Your task to perform on an android device: refresh tabs in the chrome app Image 0: 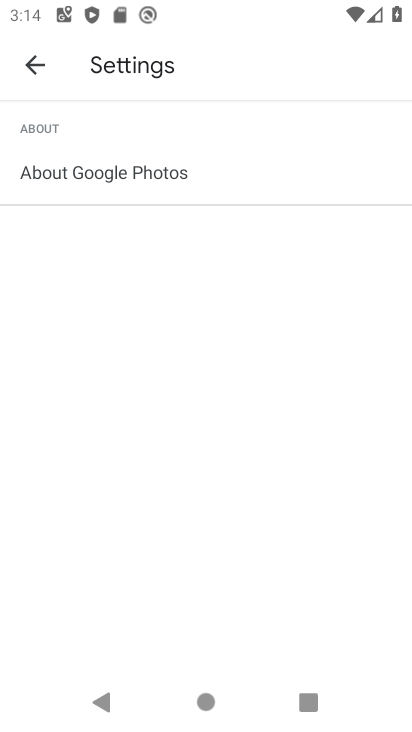
Step 0: press back button
Your task to perform on an android device: refresh tabs in the chrome app Image 1: 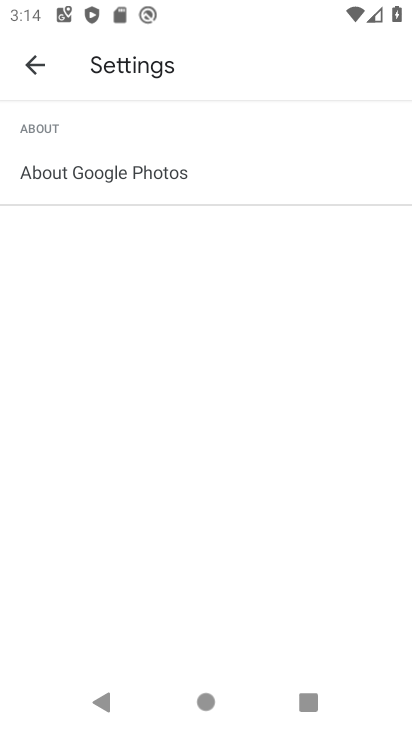
Step 1: press back button
Your task to perform on an android device: refresh tabs in the chrome app Image 2: 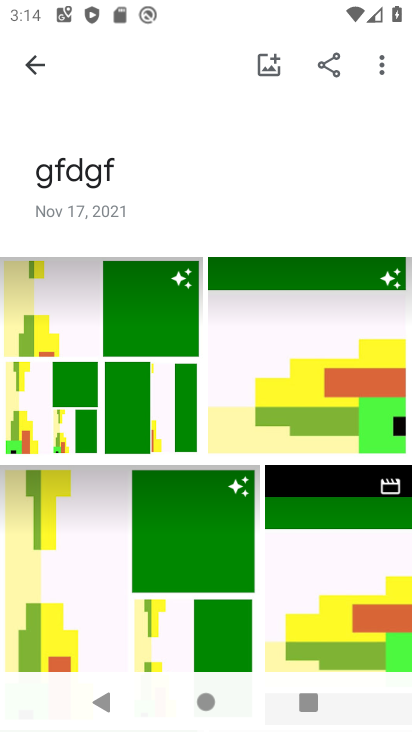
Step 2: press back button
Your task to perform on an android device: refresh tabs in the chrome app Image 3: 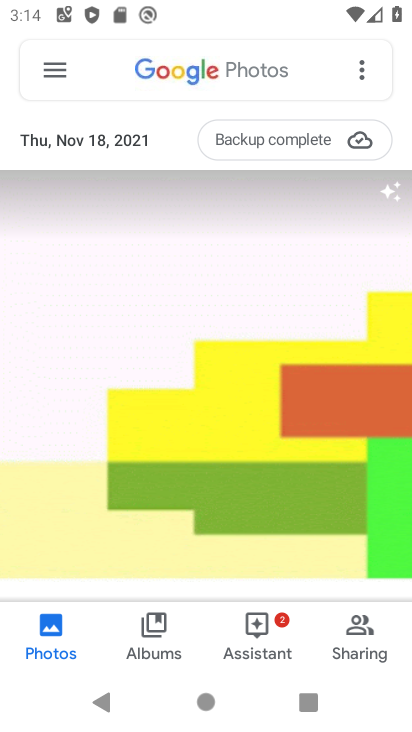
Step 3: press back button
Your task to perform on an android device: refresh tabs in the chrome app Image 4: 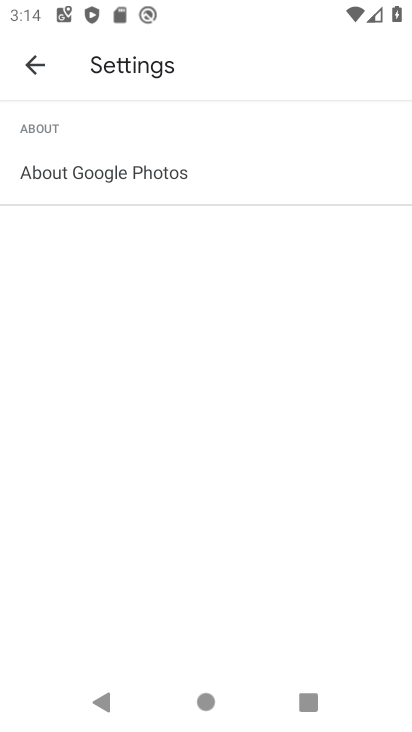
Step 4: press back button
Your task to perform on an android device: refresh tabs in the chrome app Image 5: 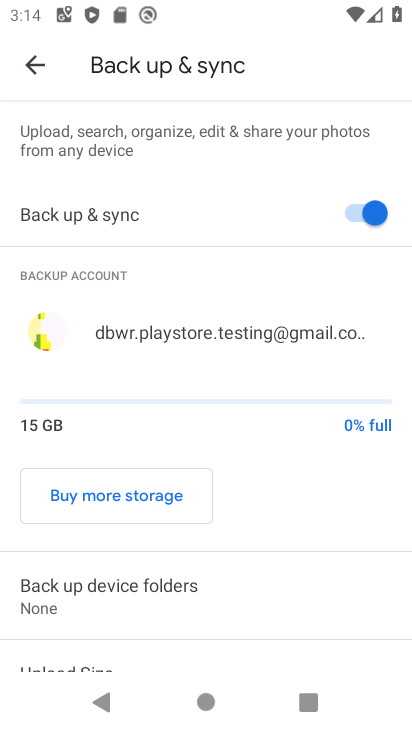
Step 5: press home button
Your task to perform on an android device: refresh tabs in the chrome app Image 6: 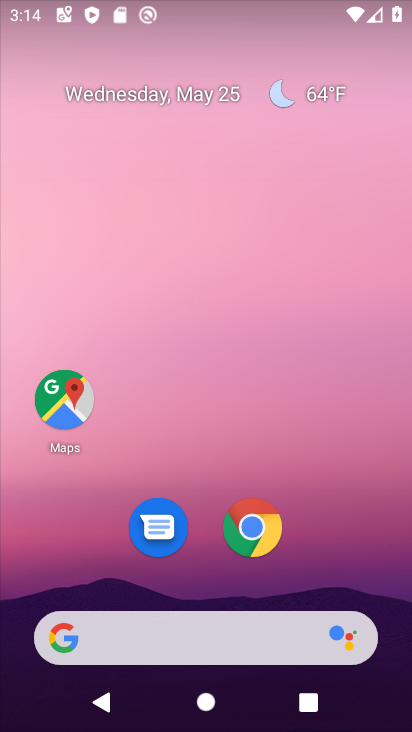
Step 6: click (263, 530)
Your task to perform on an android device: refresh tabs in the chrome app Image 7: 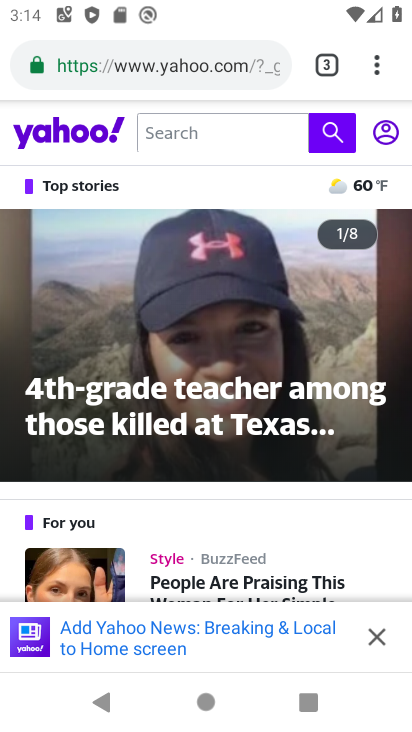
Step 7: click (376, 67)
Your task to perform on an android device: refresh tabs in the chrome app Image 8: 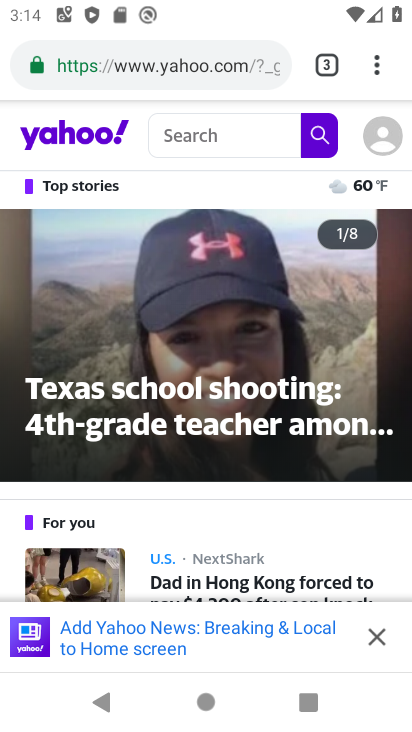
Step 8: task complete